Your task to perform on an android device: Open network settings Image 0: 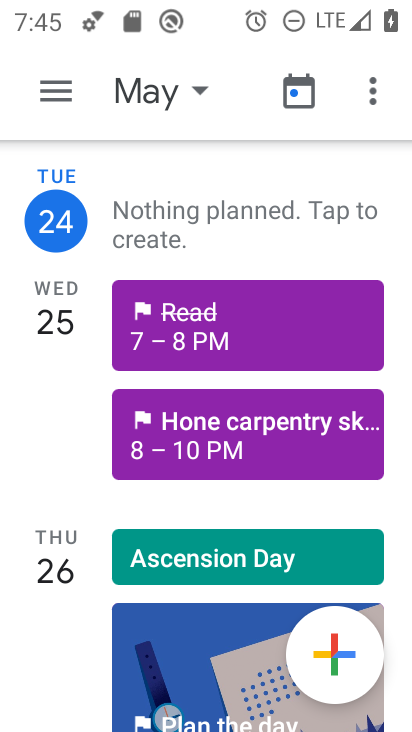
Step 0: press home button
Your task to perform on an android device: Open network settings Image 1: 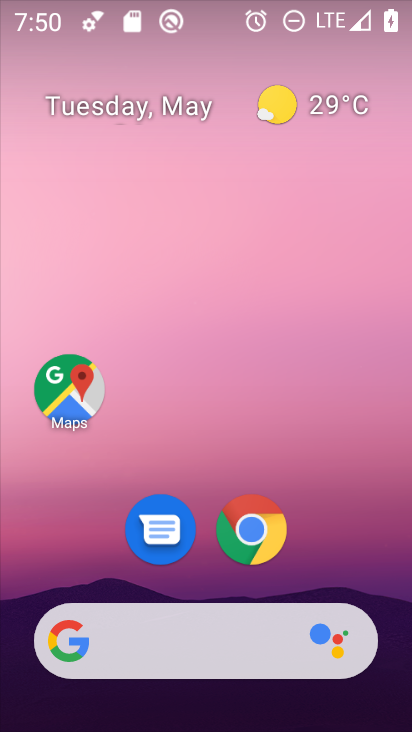
Step 1: drag from (401, 641) to (288, 51)
Your task to perform on an android device: Open network settings Image 2: 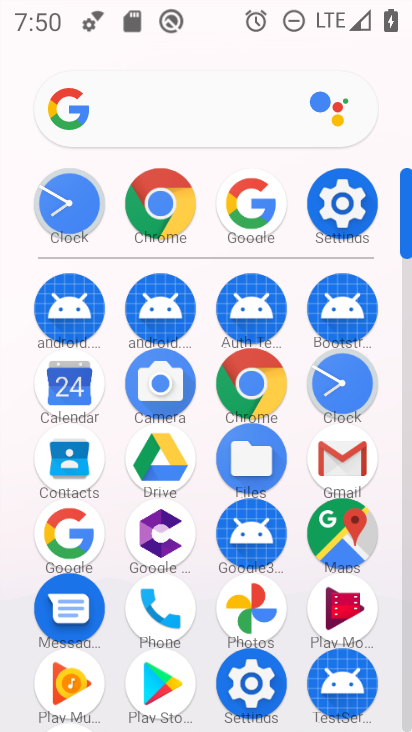
Step 2: click (336, 221)
Your task to perform on an android device: Open network settings Image 3: 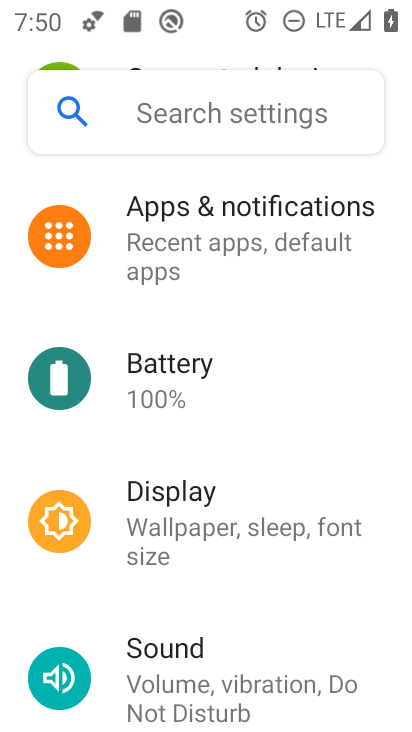
Step 3: drag from (286, 285) to (301, 585)
Your task to perform on an android device: Open network settings Image 4: 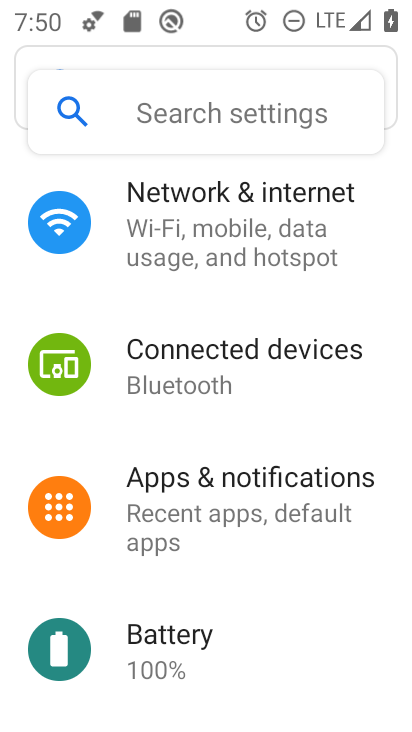
Step 4: click (215, 264)
Your task to perform on an android device: Open network settings Image 5: 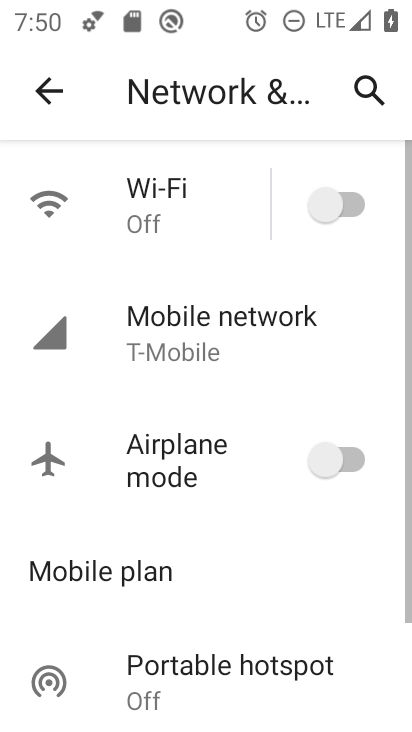
Step 5: task complete